Your task to perform on an android device: Open the calendar app, open the side menu, and click the "Day" option Image 0: 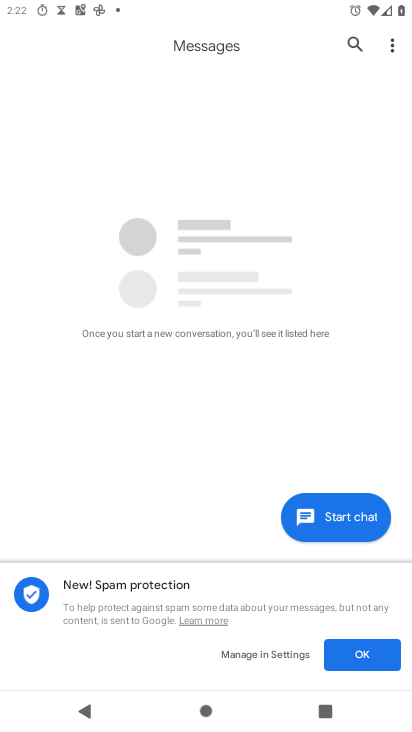
Step 0: press home button
Your task to perform on an android device: Open the calendar app, open the side menu, and click the "Day" option Image 1: 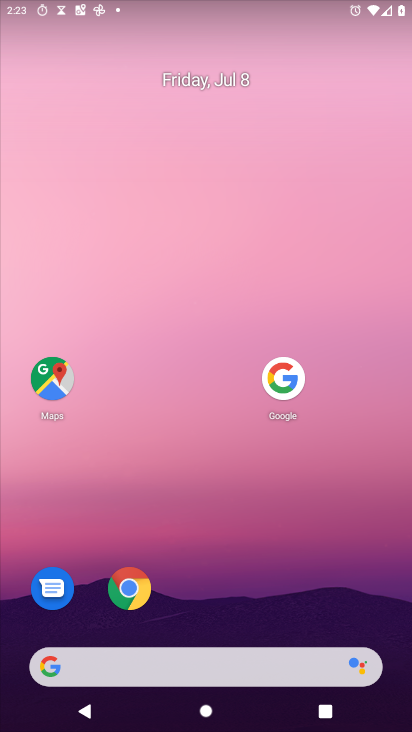
Step 1: drag from (115, 665) to (237, 151)
Your task to perform on an android device: Open the calendar app, open the side menu, and click the "Day" option Image 2: 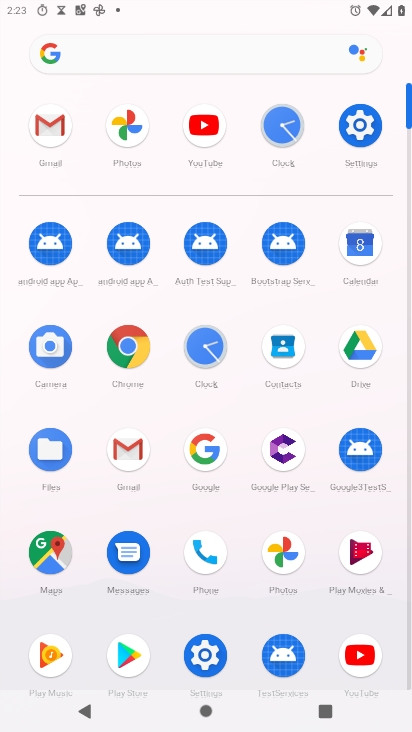
Step 2: drag from (234, 656) to (324, 77)
Your task to perform on an android device: Open the calendar app, open the side menu, and click the "Day" option Image 3: 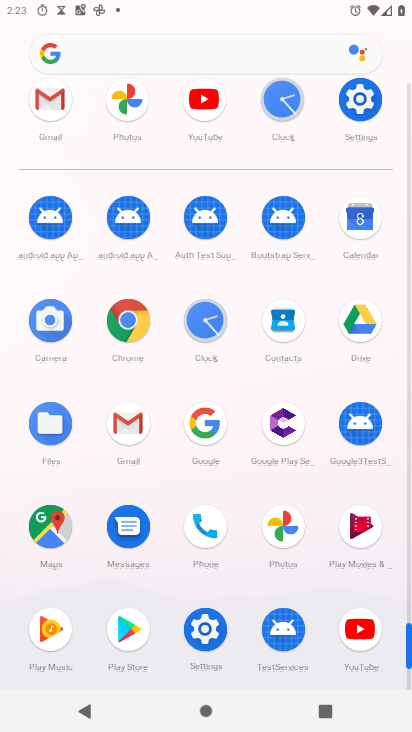
Step 3: click (359, 217)
Your task to perform on an android device: Open the calendar app, open the side menu, and click the "Day" option Image 4: 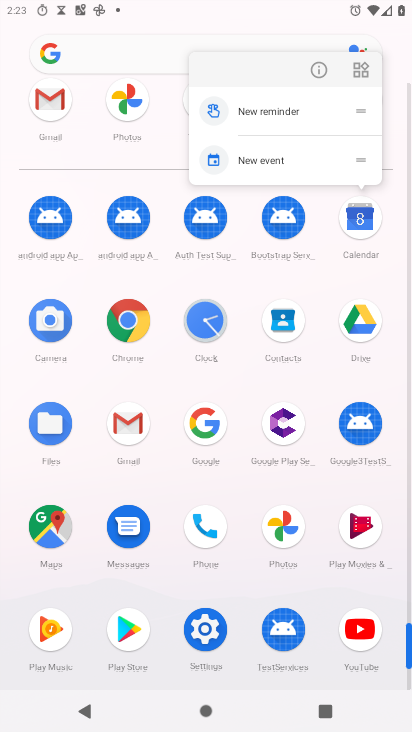
Step 4: click (353, 215)
Your task to perform on an android device: Open the calendar app, open the side menu, and click the "Day" option Image 5: 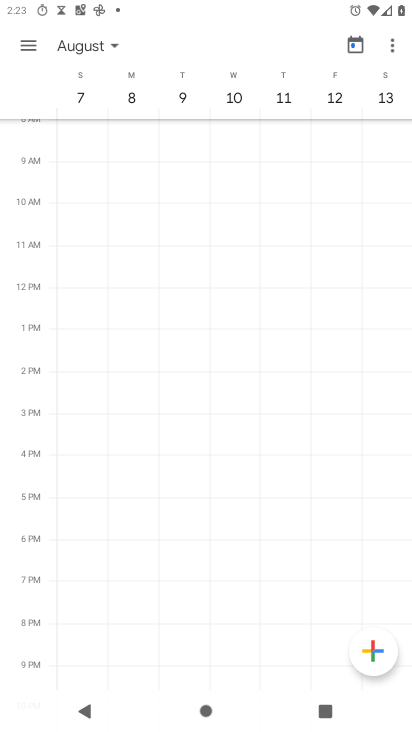
Step 5: click (74, 38)
Your task to perform on an android device: Open the calendar app, open the side menu, and click the "Day" option Image 6: 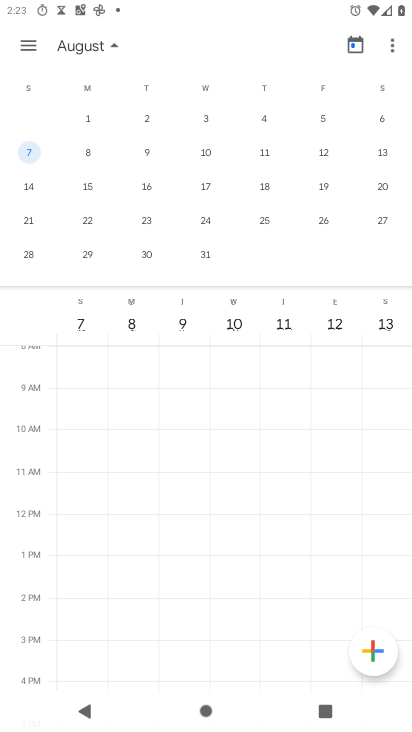
Step 6: drag from (80, 190) to (334, 217)
Your task to perform on an android device: Open the calendar app, open the side menu, and click the "Day" option Image 7: 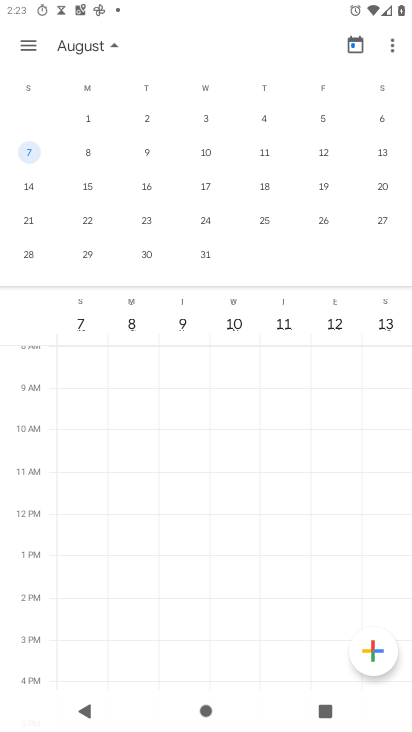
Step 7: click (28, 48)
Your task to perform on an android device: Open the calendar app, open the side menu, and click the "Day" option Image 8: 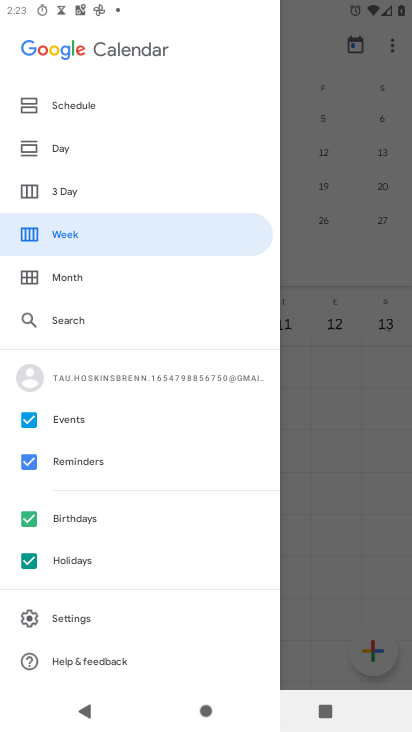
Step 8: click (63, 150)
Your task to perform on an android device: Open the calendar app, open the side menu, and click the "Day" option Image 9: 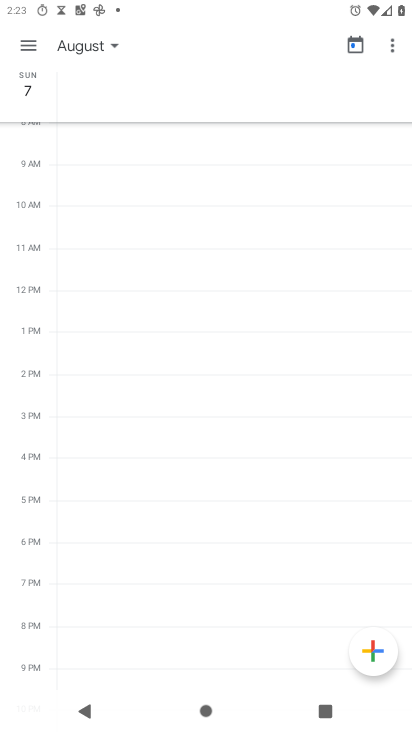
Step 9: task complete